Your task to perform on an android device: toggle wifi Image 0: 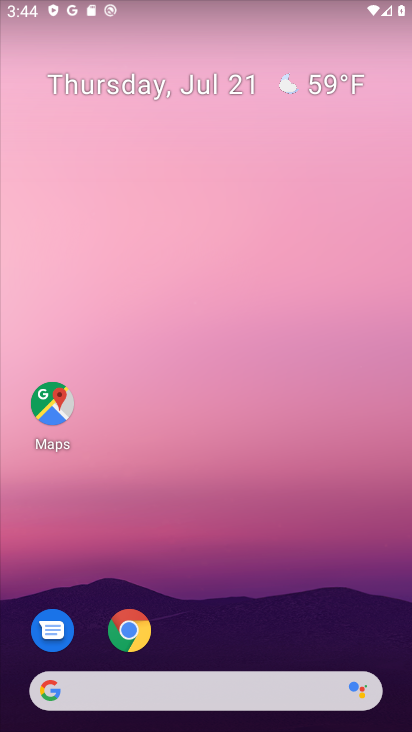
Step 0: drag from (250, 554) to (210, 163)
Your task to perform on an android device: toggle wifi Image 1: 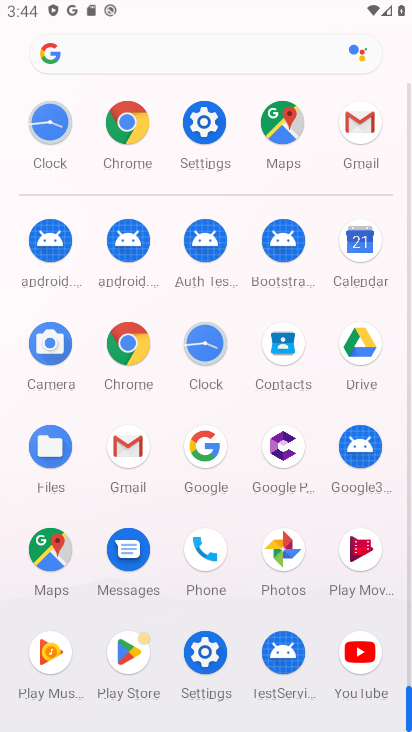
Step 1: click (195, 125)
Your task to perform on an android device: toggle wifi Image 2: 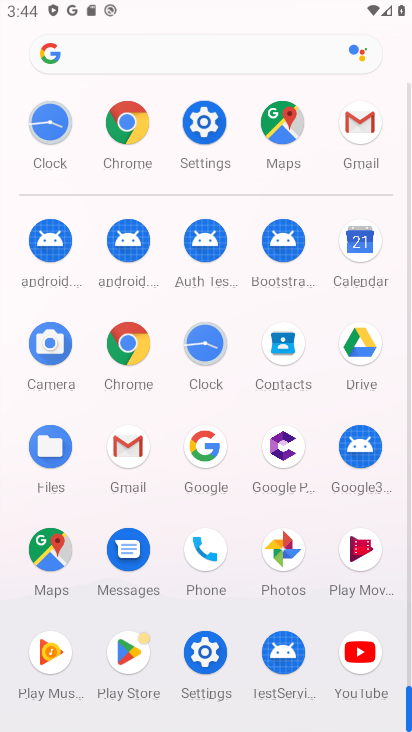
Step 2: click (195, 124)
Your task to perform on an android device: toggle wifi Image 3: 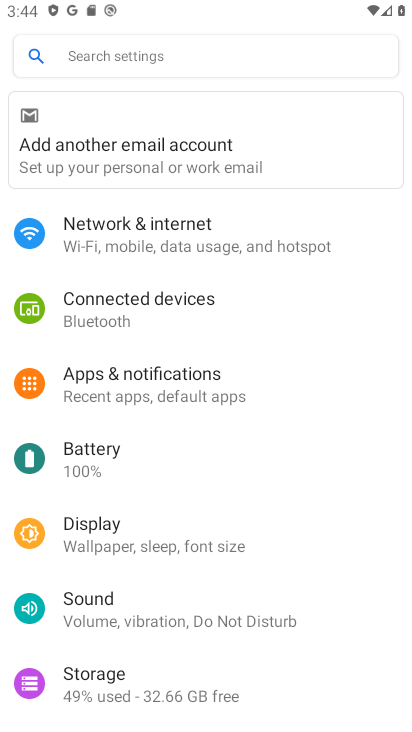
Step 3: click (127, 225)
Your task to perform on an android device: toggle wifi Image 4: 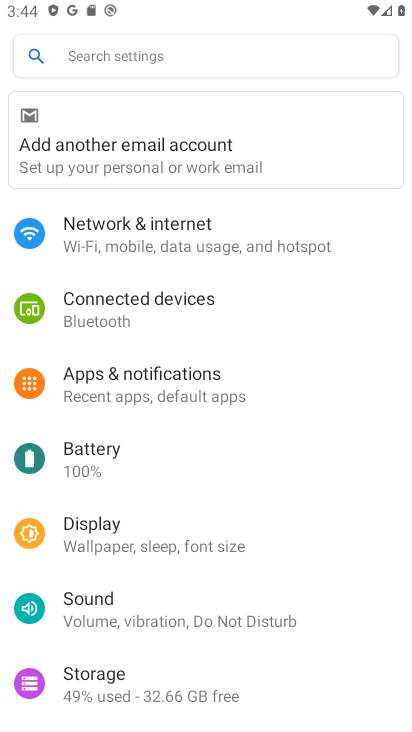
Step 4: click (136, 235)
Your task to perform on an android device: toggle wifi Image 5: 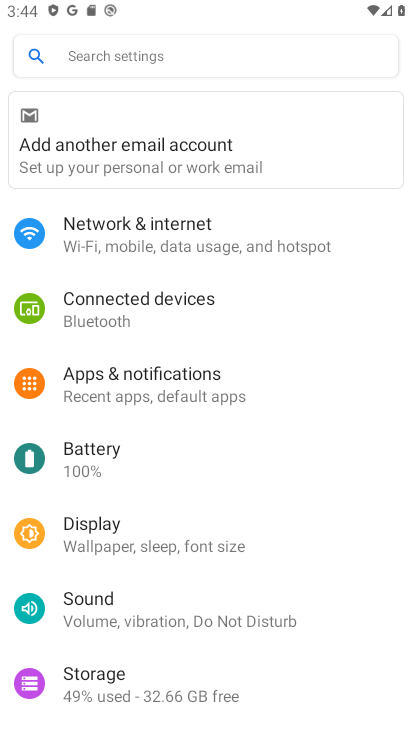
Step 5: click (174, 227)
Your task to perform on an android device: toggle wifi Image 6: 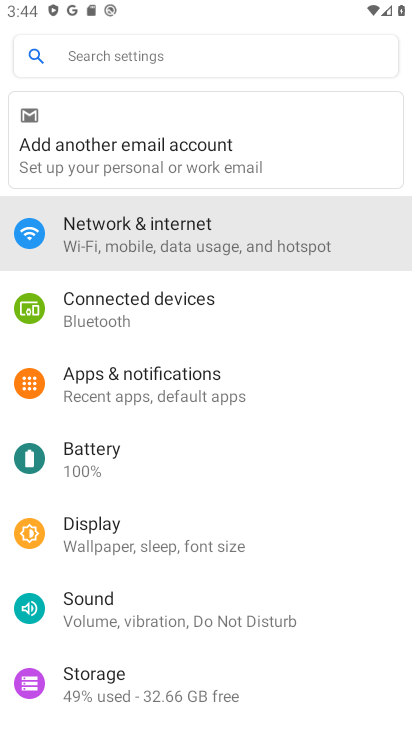
Step 6: click (206, 253)
Your task to perform on an android device: toggle wifi Image 7: 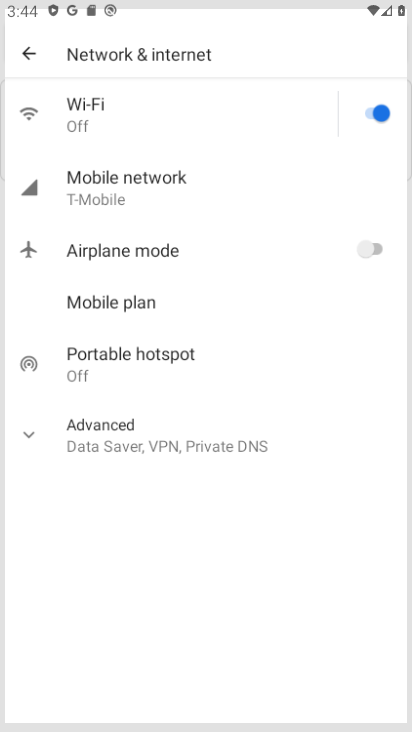
Step 7: click (206, 253)
Your task to perform on an android device: toggle wifi Image 8: 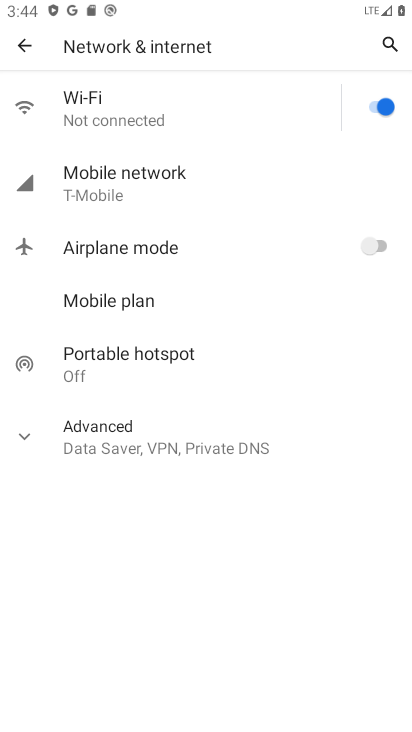
Step 8: click (387, 105)
Your task to perform on an android device: toggle wifi Image 9: 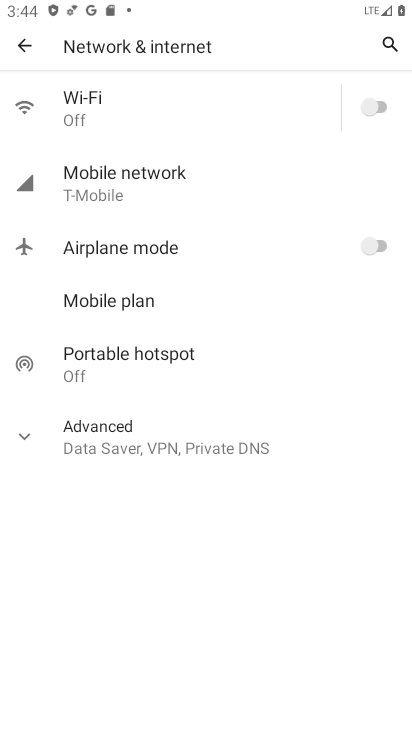
Step 9: task complete